Your task to perform on an android device: Is it going to rain today? Image 0: 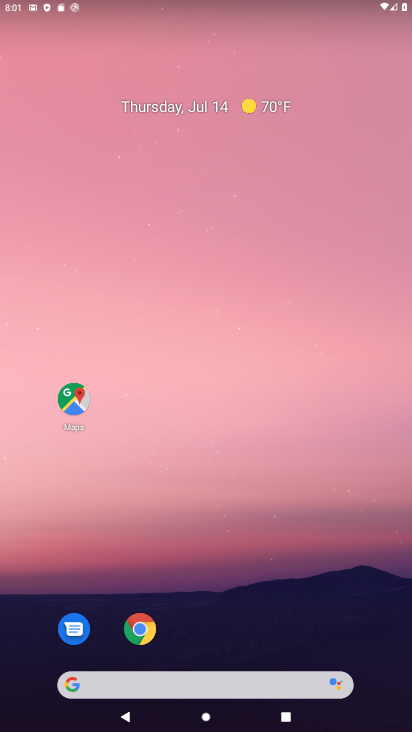
Step 0: drag from (313, 384) to (332, 27)
Your task to perform on an android device: Is it going to rain today? Image 1: 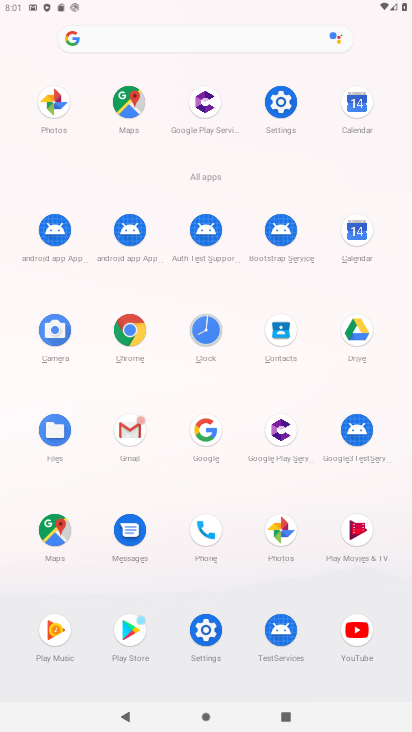
Step 1: click (211, 426)
Your task to perform on an android device: Is it going to rain today? Image 2: 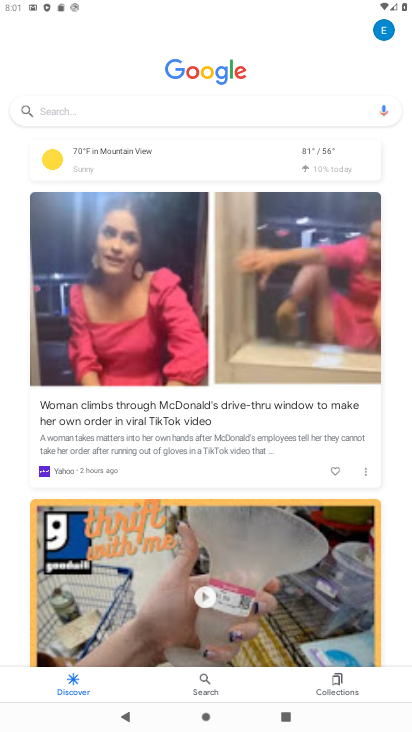
Step 2: click (146, 149)
Your task to perform on an android device: Is it going to rain today? Image 3: 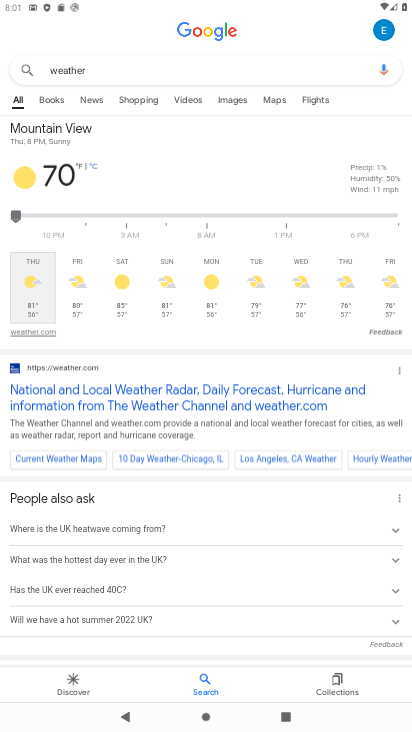
Step 3: task complete